Your task to perform on an android device: change text size in settings app Image 0: 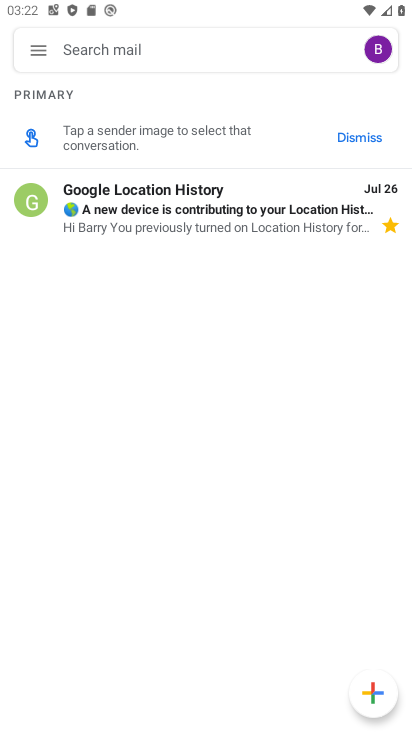
Step 0: click (37, 46)
Your task to perform on an android device: change text size in settings app Image 1: 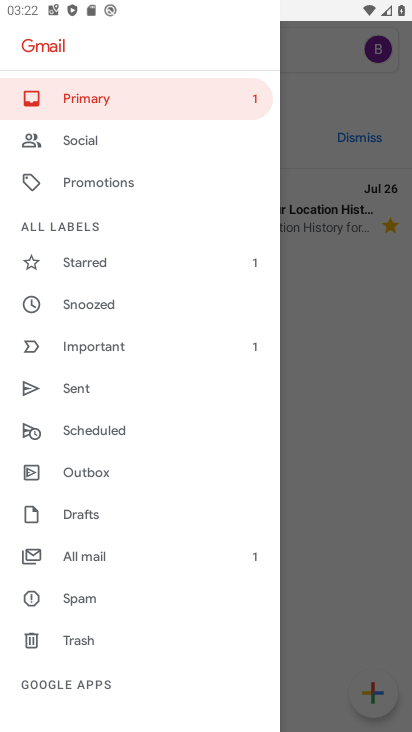
Step 1: click (344, 432)
Your task to perform on an android device: change text size in settings app Image 2: 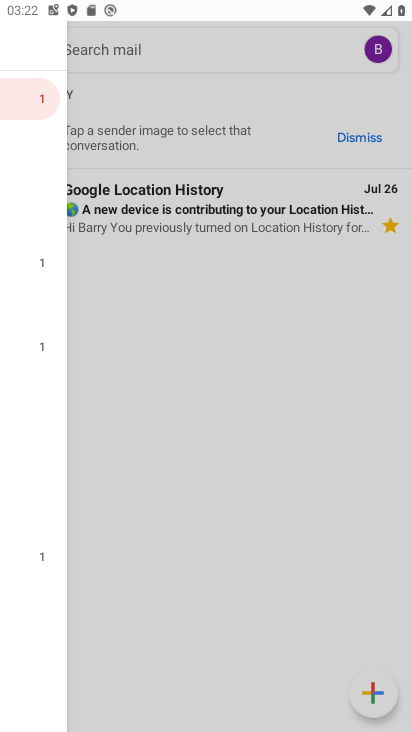
Step 2: click (337, 396)
Your task to perform on an android device: change text size in settings app Image 3: 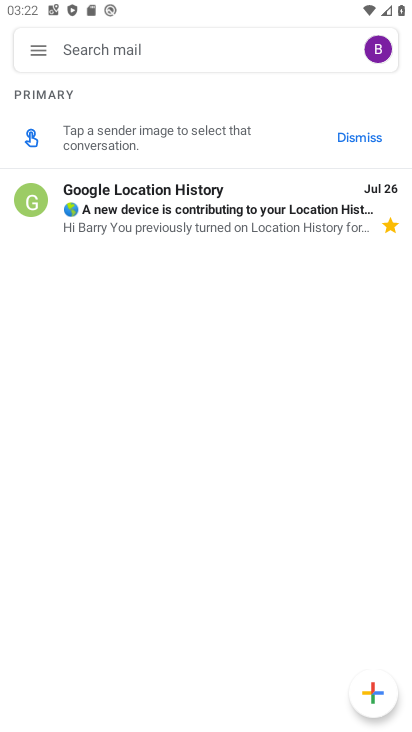
Step 3: click (342, 389)
Your task to perform on an android device: change text size in settings app Image 4: 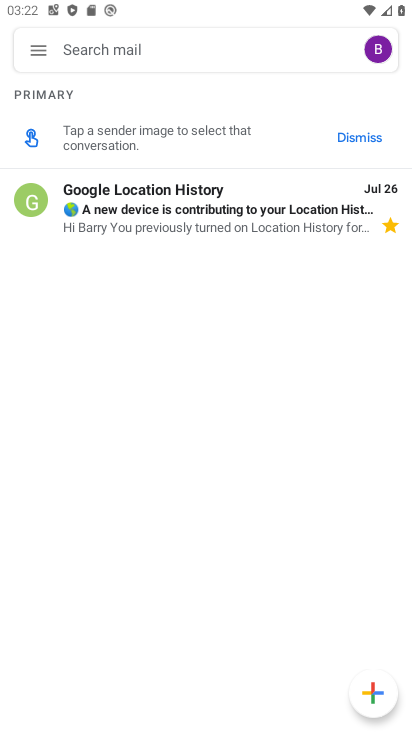
Step 4: press back button
Your task to perform on an android device: change text size in settings app Image 5: 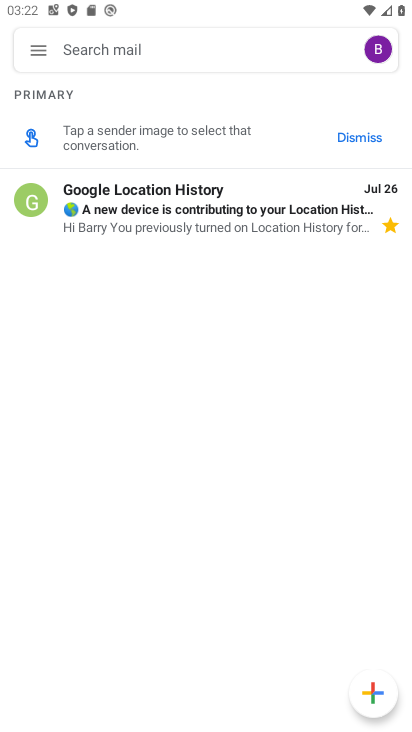
Step 5: press back button
Your task to perform on an android device: change text size in settings app Image 6: 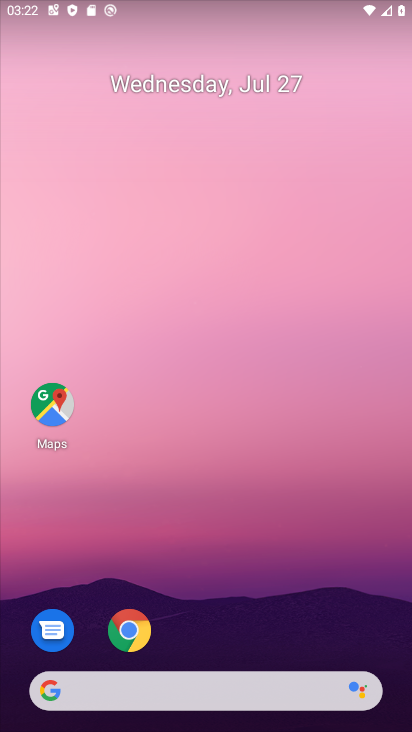
Step 6: drag from (275, 652) to (173, 108)
Your task to perform on an android device: change text size in settings app Image 7: 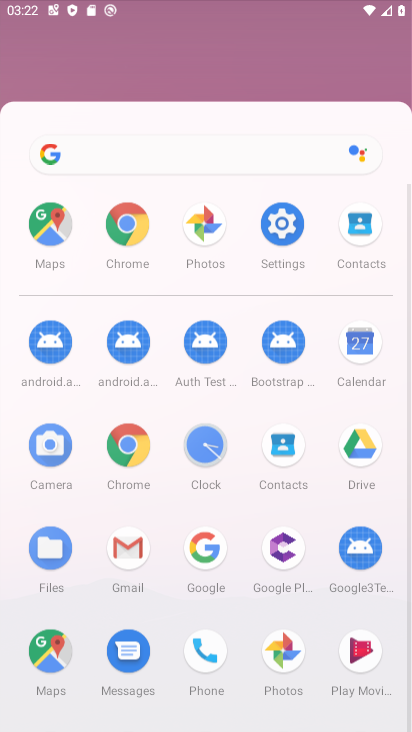
Step 7: drag from (251, 517) to (135, 35)
Your task to perform on an android device: change text size in settings app Image 8: 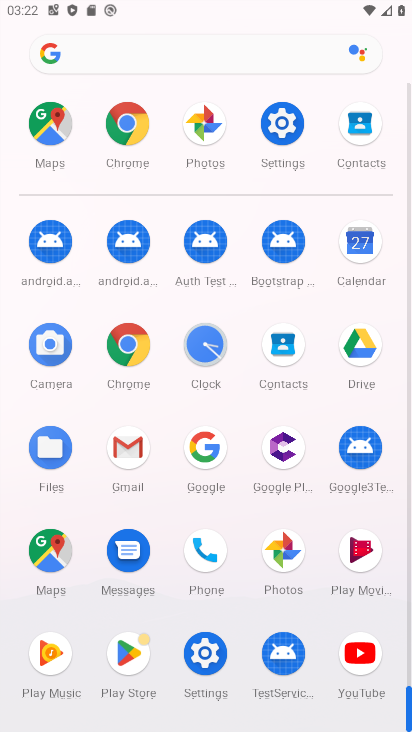
Step 8: drag from (164, 269) to (135, 65)
Your task to perform on an android device: change text size in settings app Image 9: 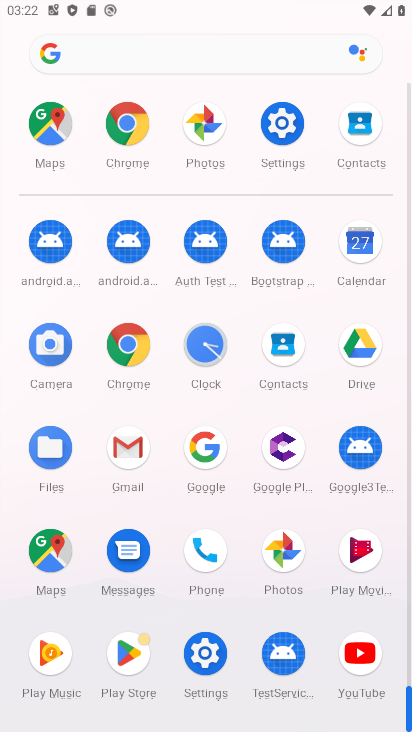
Step 9: click (210, 654)
Your task to perform on an android device: change text size in settings app Image 10: 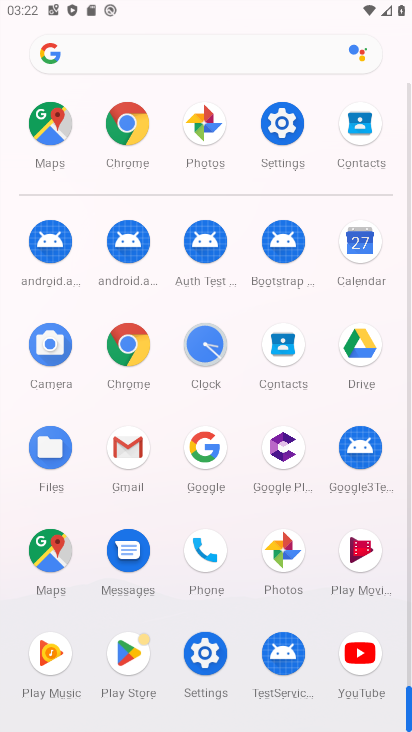
Step 10: click (208, 655)
Your task to perform on an android device: change text size in settings app Image 11: 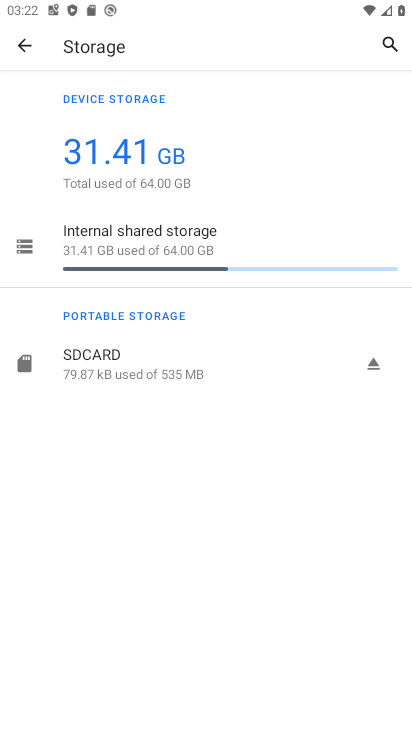
Step 11: click (15, 48)
Your task to perform on an android device: change text size in settings app Image 12: 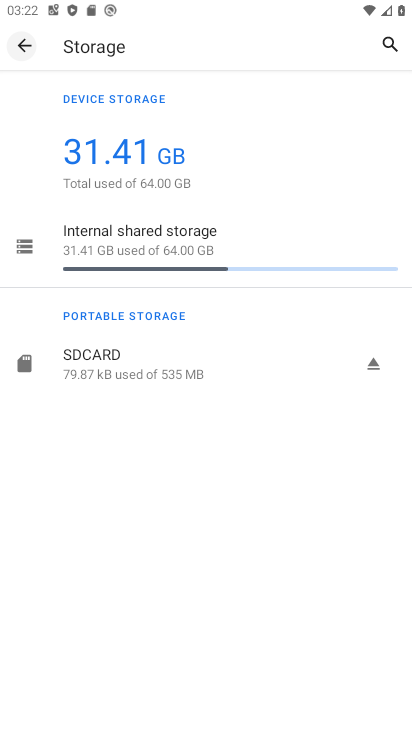
Step 12: click (20, 45)
Your task to perform on an android device: change text size in settings app Image 13: 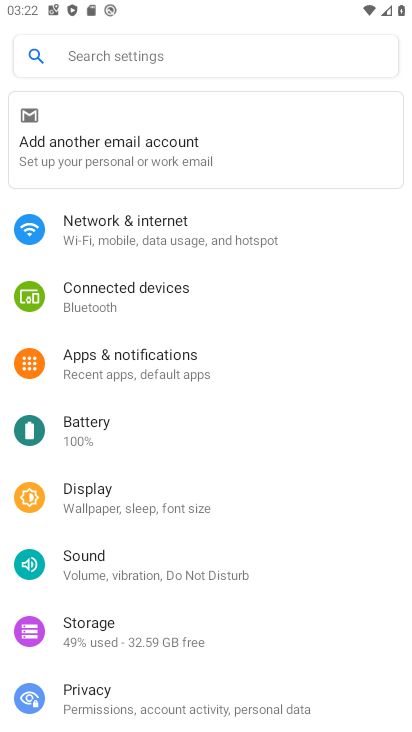
Step 13: drag from (123, 526) to (95, 222)
Your task to perform on an android device: change text size in settings app Image 14: 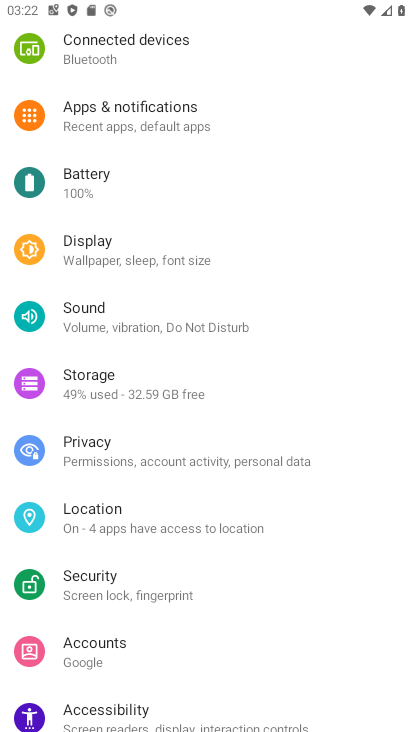
Step 14: drag from (183, 508) to (141, 299)
Your task to perform on an android device: change text size in settings app Image 15: 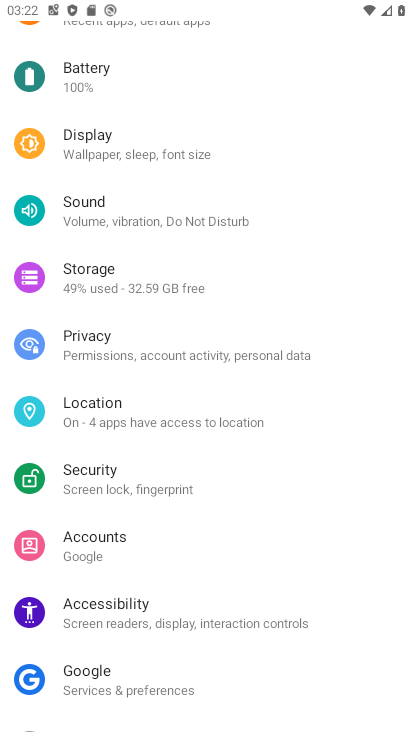
Step 15: click (92, 154)
Your task to perform on an android device: change text size in settings app Image 16: 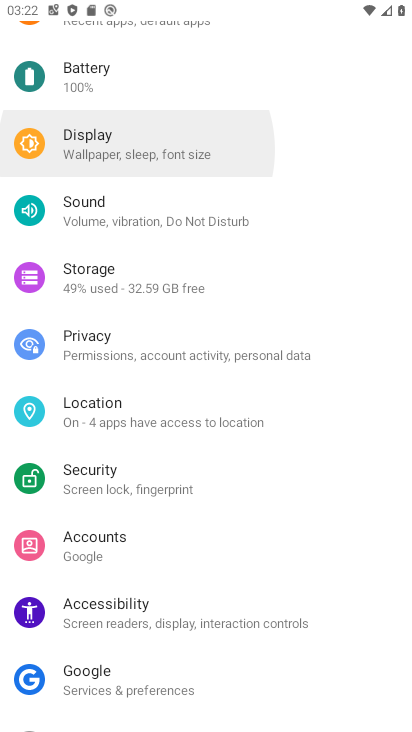
Step 16: click (92, 153)
Your task to perform on an android device: change text size in settings app Image 17: 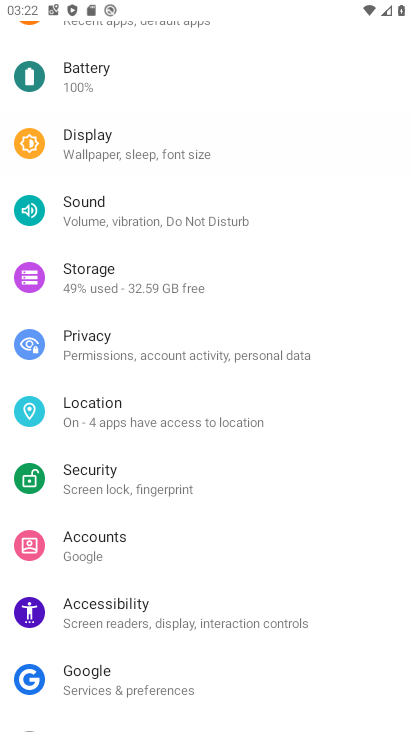
Step 17: click (94, 153)
Your task to perform on an android device: change text size in settings app Image 18: 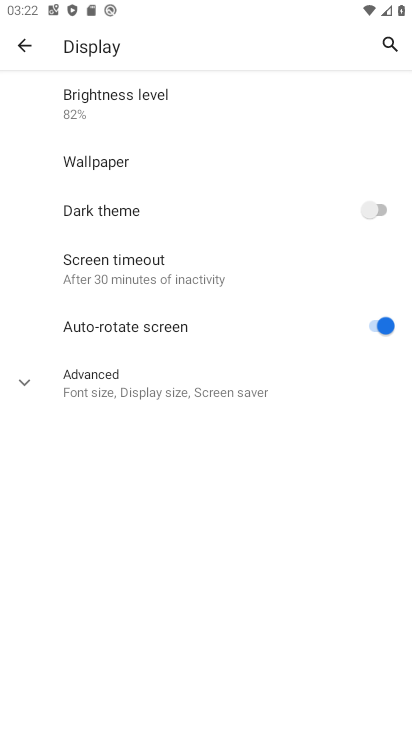
Step 18: click (108, 389)
Your task to perform on an android device: change text size in settings app Image 19: 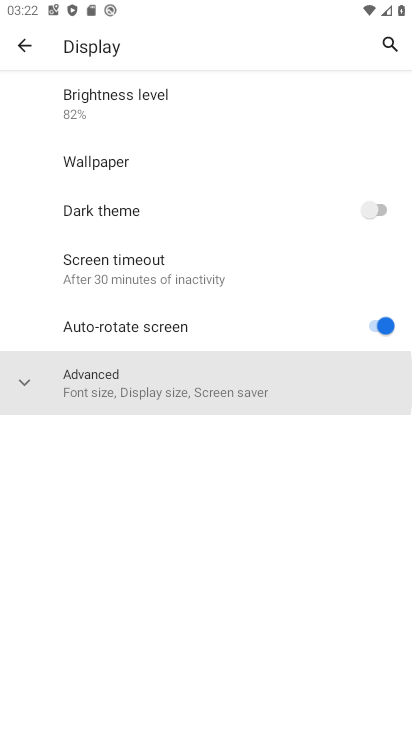
Step 19: click (108, 389)
Your task to perform on an android device: change text size in settings app Image 20: 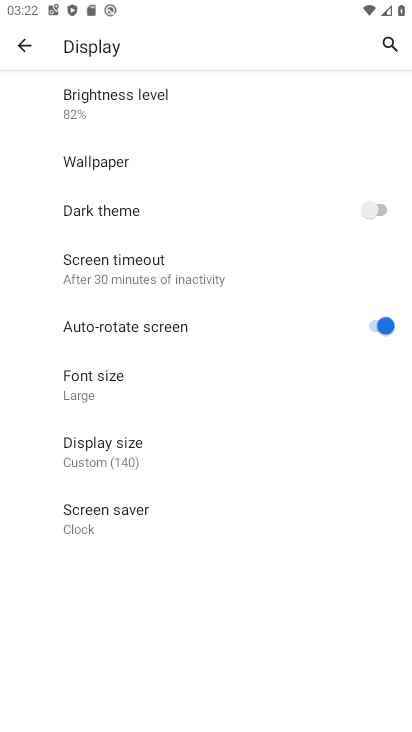
Step 20: click (108, 389)
Your task to perform on an android device: change text size in settings app Image 21: 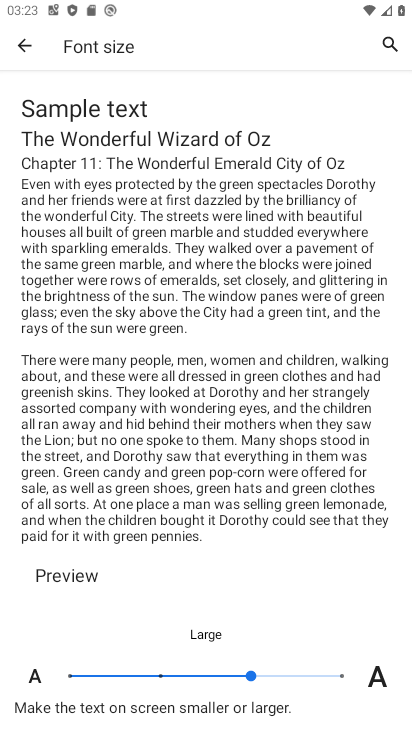
Step 21: click (343, 673)
Your task to perform on an android device: change text size in settings app Image 22: 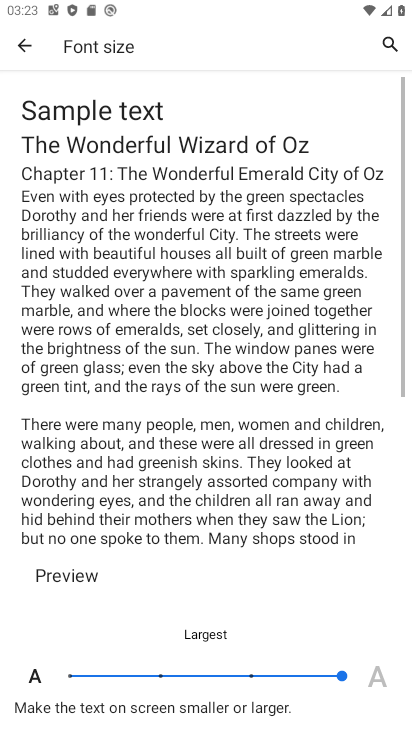
Step 22: click (343, 676)
Your task to perform on an android device: change text size in settings app Image 23: 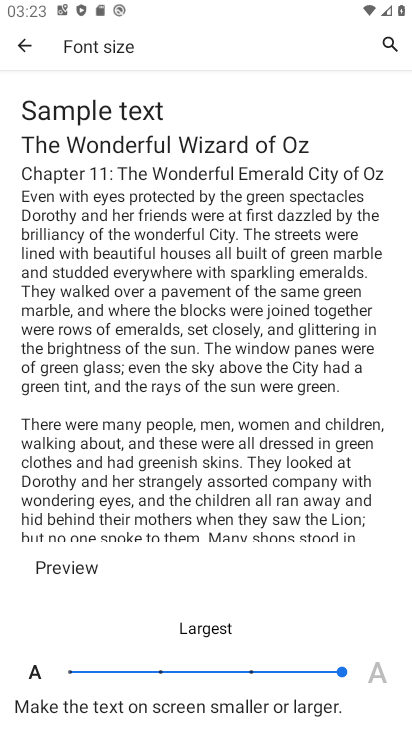
Step 23: task complete